Your task to perform on an android device: turn off airplane mode Image 0: 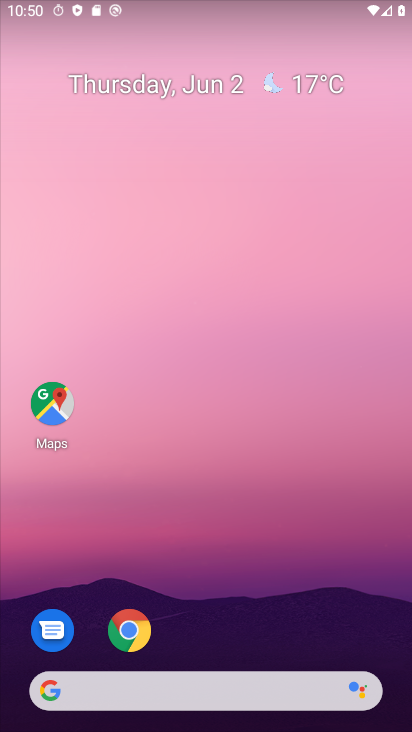
Step 0: drag from (232, 652) to (342, 5)
Your task to perform on an android device: turn off airplane mode Image 1: 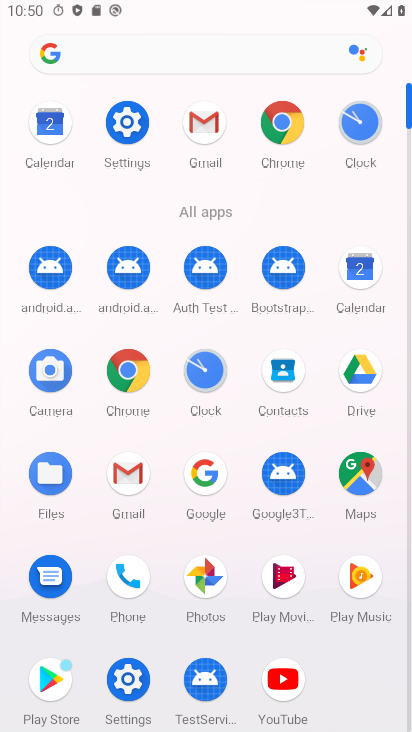
Step 1: click (130, 159)
Your task to perform on an android device: turn off airplane mode Image 2: 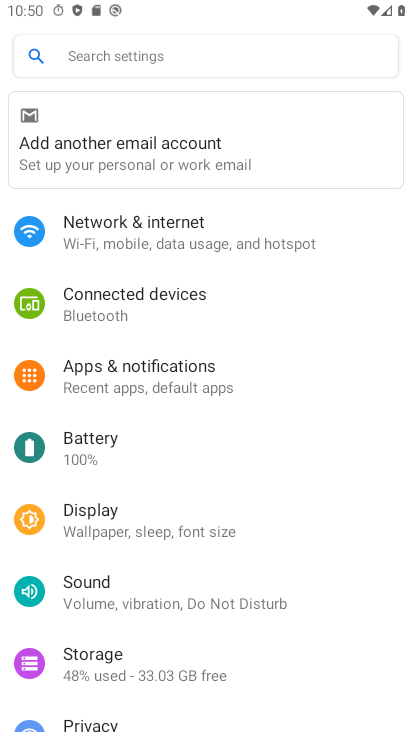
Step 2: click (144, 260)
Your task to perform on an android device: turn off airplane mode Image 3: 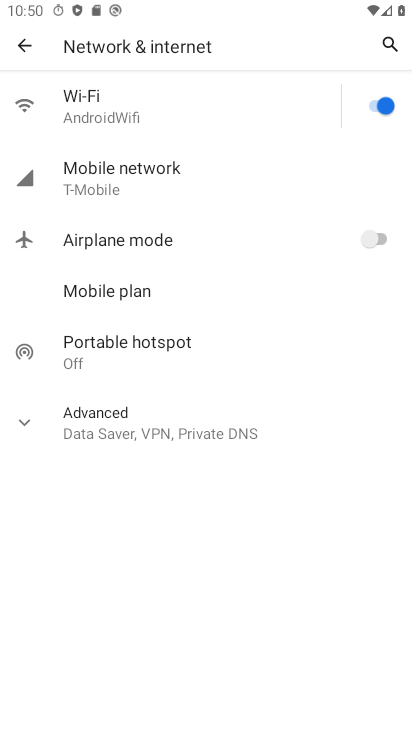
Step 3: task complete